Your task to perform on an android device: Go to Wikipedia Image 0: 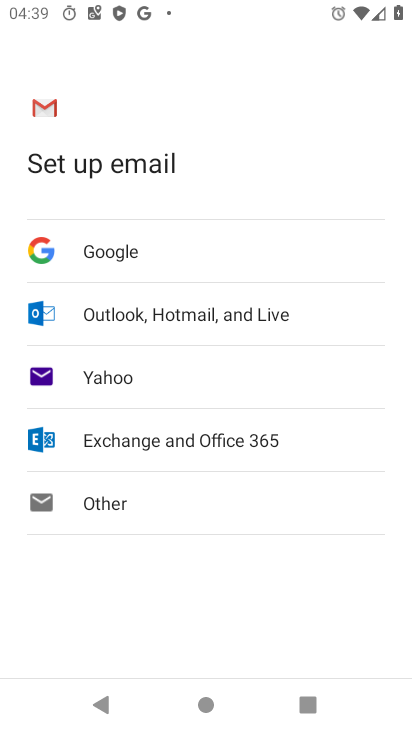
Step 0: press home button
Your task to perform on an android device: Go to Wikipedia Image 1: 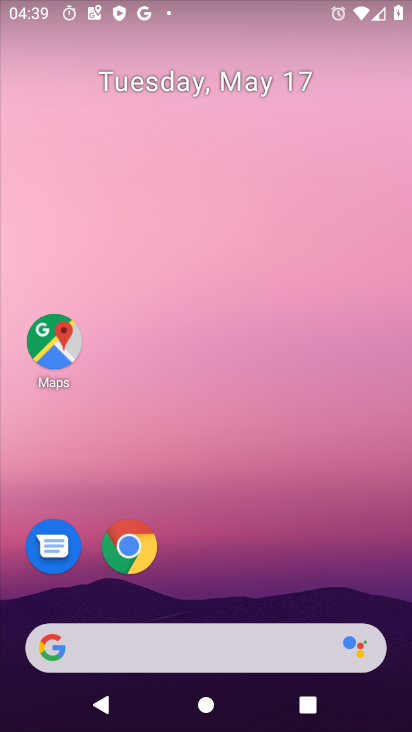
Step 1: click (129, 558)
Your task to perform on an android device: Go to Wikipedia Image 2: 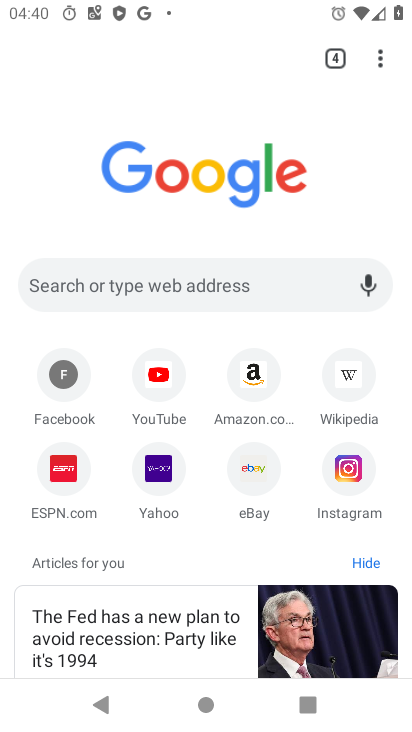
Step 2: click (149, 292)
Your task to perform on an android device: Go to Wikipedia Image 3: 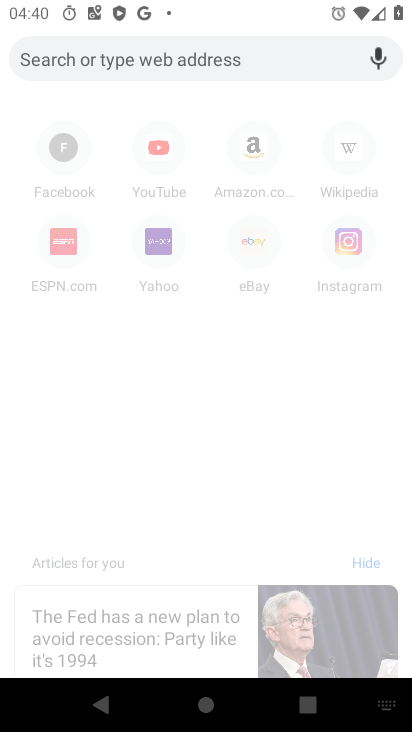
Step 3: type "Wikipedia"
Your task to perform on an android device: Go to Wikipedia Image 4: 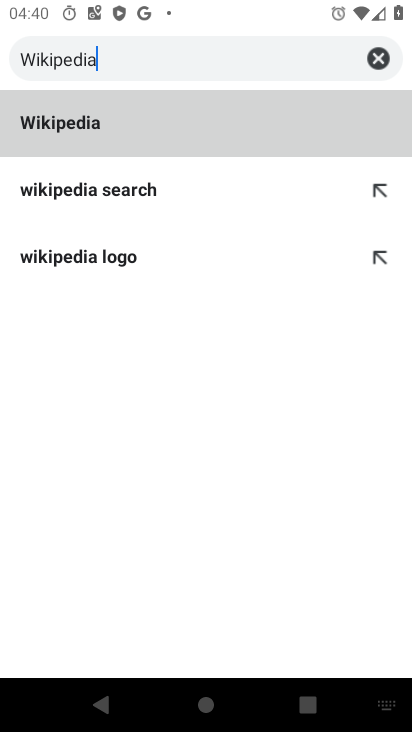
Step 4: click (118, 113)
Your task to perform on an android device: Go to Wikipedia Image 5: 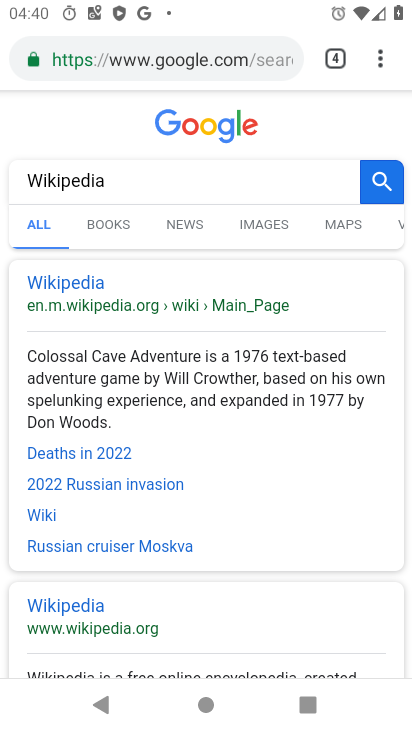
Step 5: task complete